Your task to perform on an android device: Check the weather Image 0: 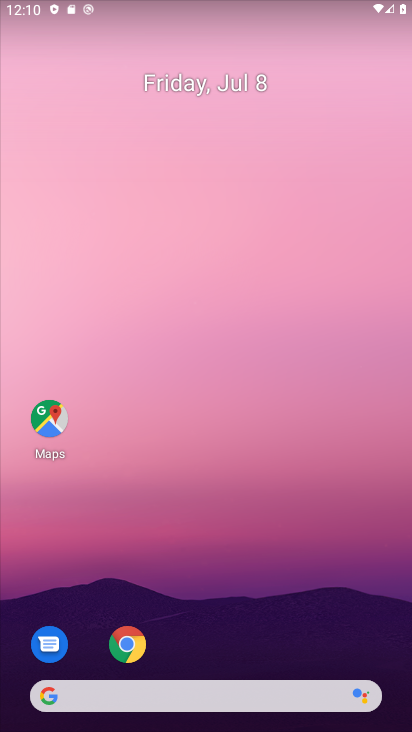
Step 0: drag from (250, 693) to (222, 207)
Your task to perform on an android device: Check the weather Image 1: 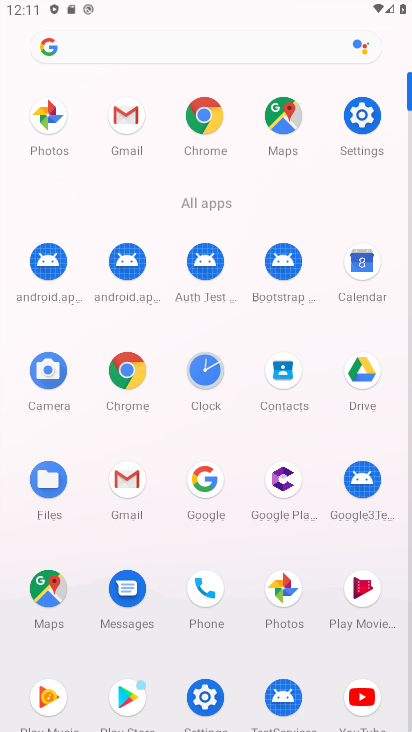
Step 1: click (215, 116)
Your task to perform on an android device: Check the weather Image 2: 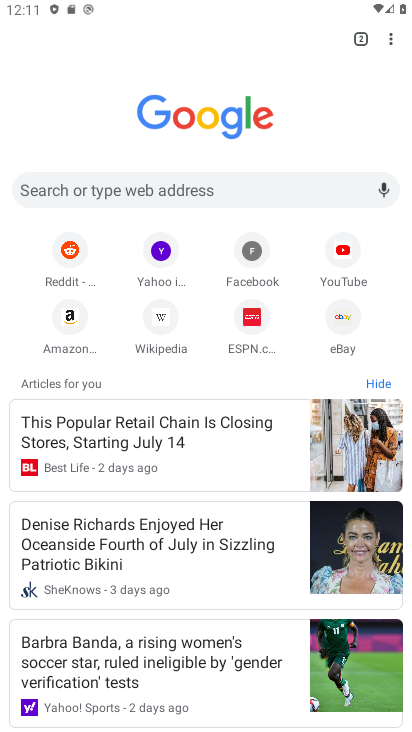
Step 2: click (179, 184)
Your task to perform on an android device: Check the weather Image 3: 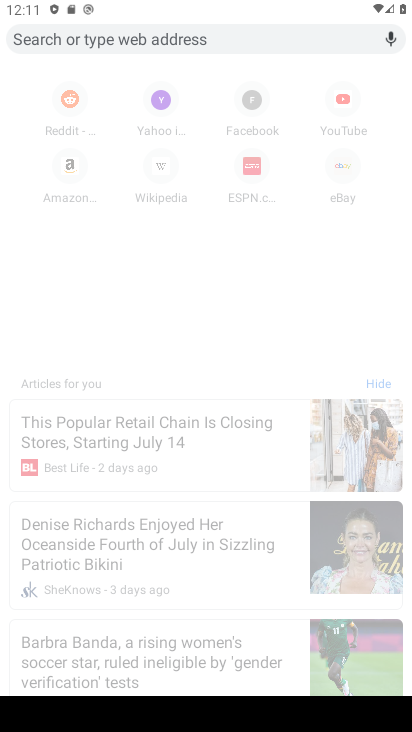
Step 3: type "weather"
Your task to perform on an android device: Check the weather Image 4: 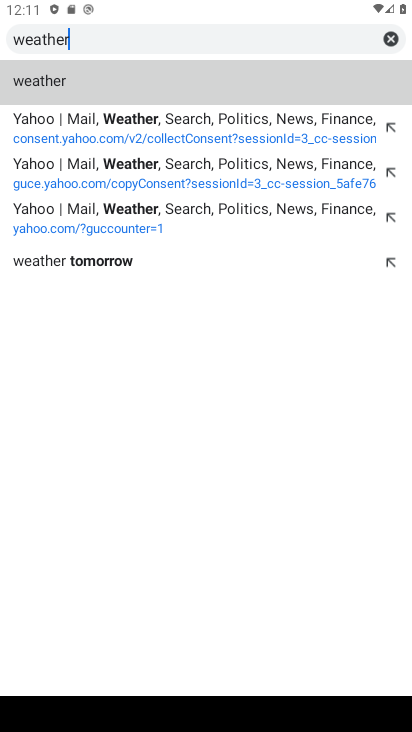
Step 4: click (136, 76)
Your task to perform on an android device: Check the weather Image 5: 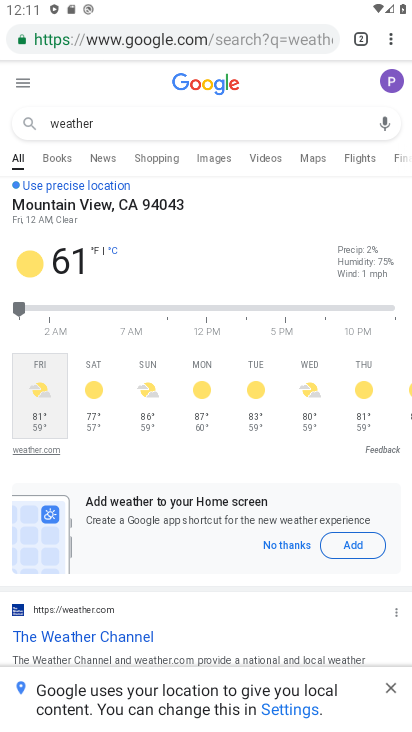
Step 5: task complete